Your task to perform on an android device: check android version Image 0: 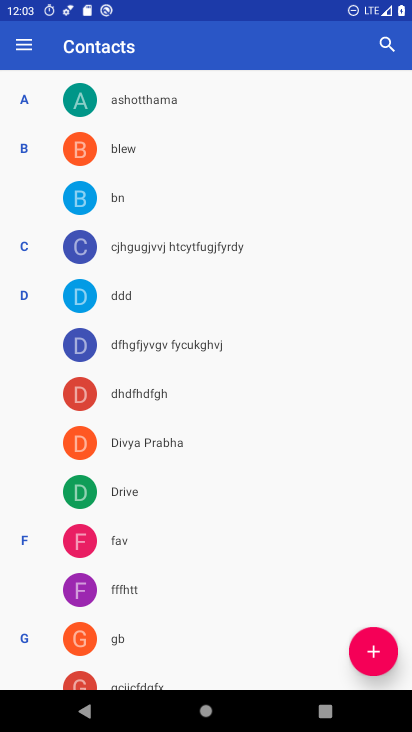
Step 0: press home button
Your task to perform on an android device: check android version Image 1: 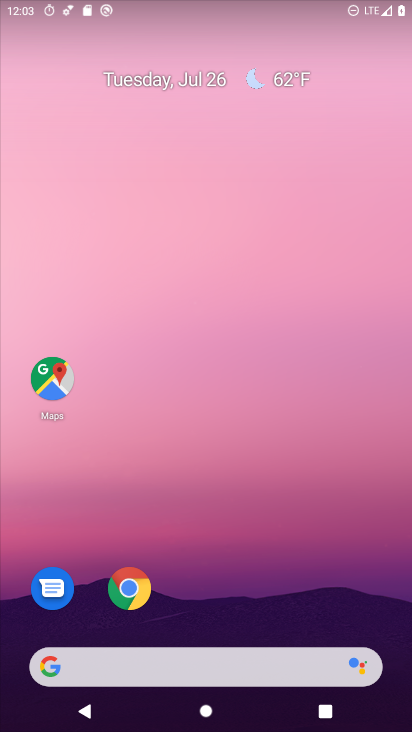
Step 1: drag from (35, 620) to (267, 127)
Your task to perform on an android device: check android version Image 2: 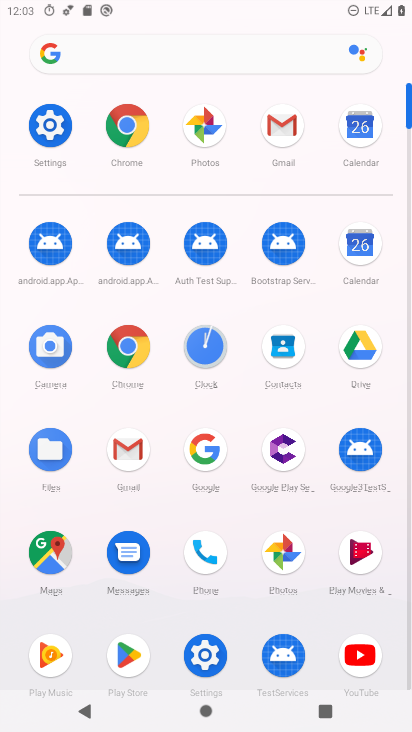
Step 2: click (37, 120)
Your task to perform on an android device: check android version Image 3: 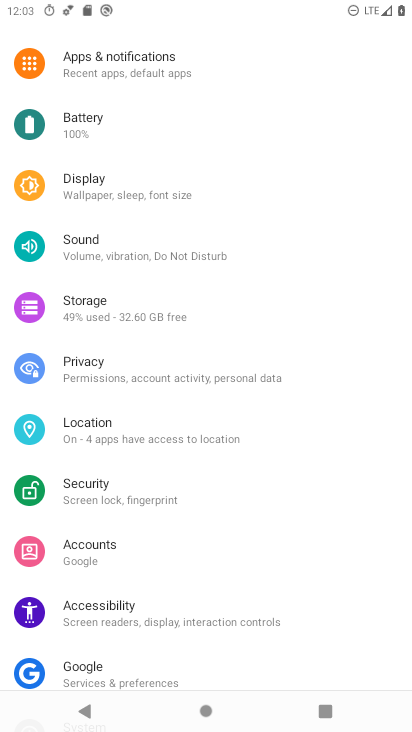
Step 3: drag from (25, 725) to (220, 121)
Your task to perform on an android device: check android version Image 4: 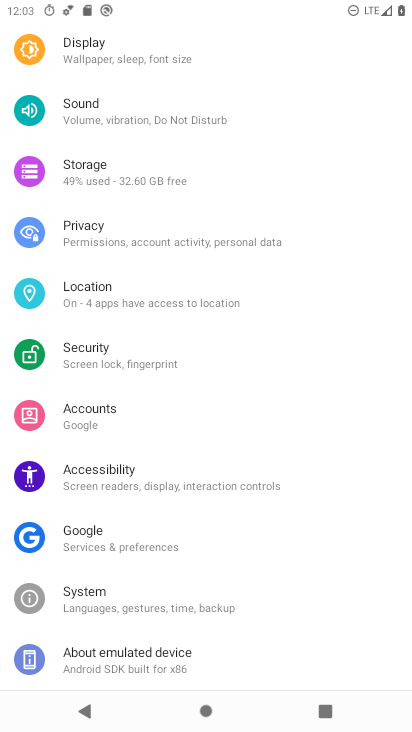
Step 4: drag from (8, 697) to (222, 263)
Your task to perform on an android device: check android version Image 5: 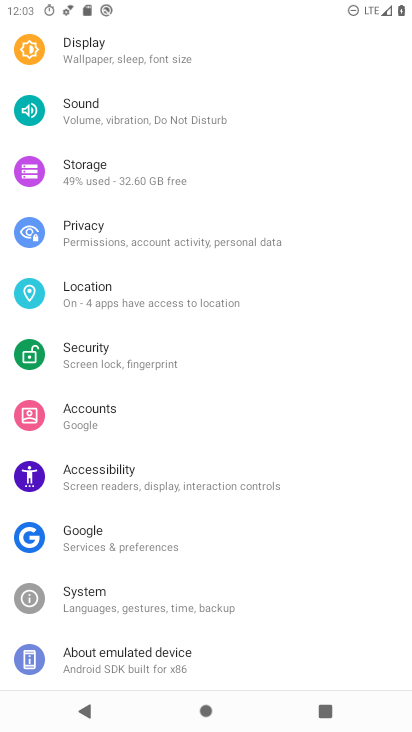
Step 5: click (153, 648)
Your task to perform on an android device: check android version Image 6: 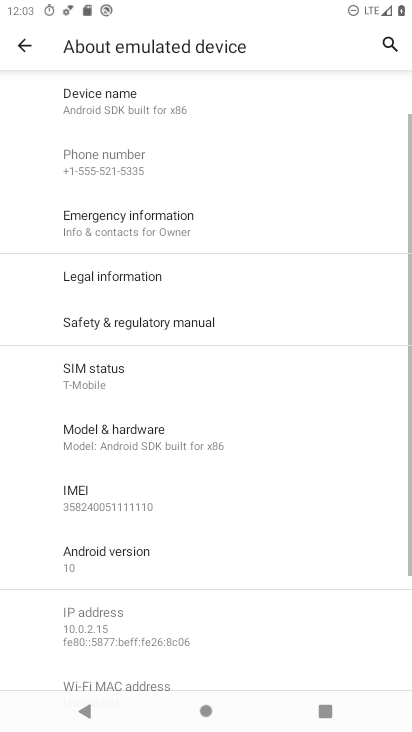
Step 6: drag from (6, 642) to (307, 115)
Your task to perform on an android device: check android version Image 7: 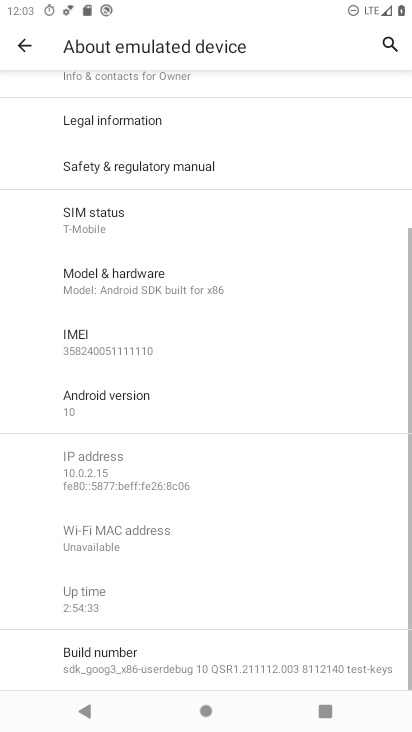
Step 7: drag from (95, 450) to (337, 119)
Your task to perform on an android device: check android version Image 8: 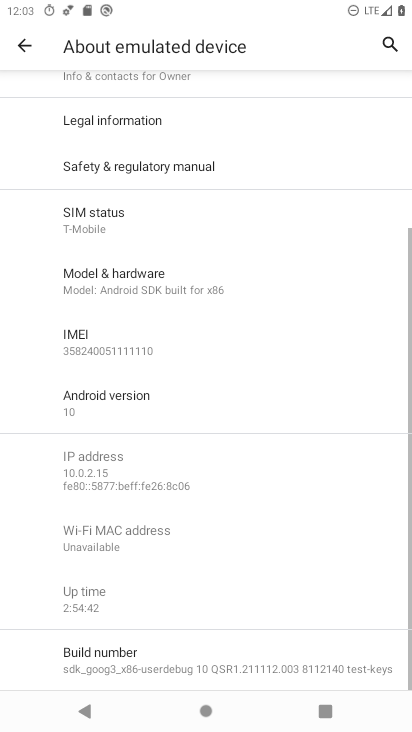
Step 8: drag from (8, 575) to (277, 121)
Your task to perform on an android device: check android version Image 9: 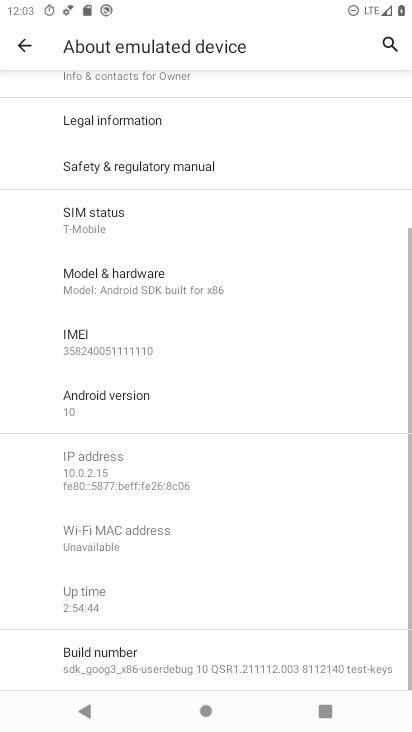
Step 9: click (149, 408)
Your task to perform on an android device: check android version Image 10: 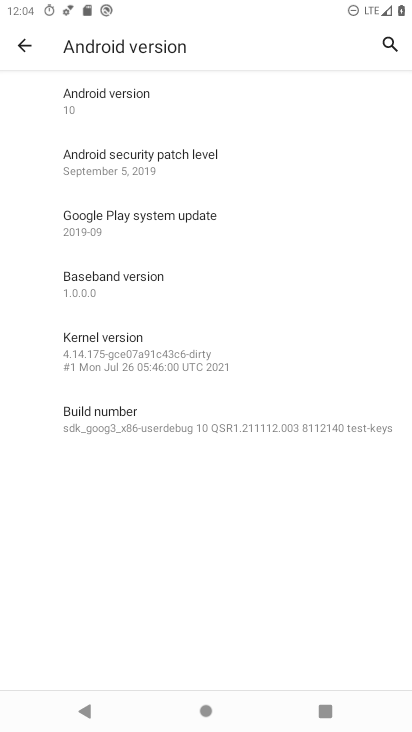
Step 10: click (161, 99)
Your task to perform on an android device: check android version Image 11: 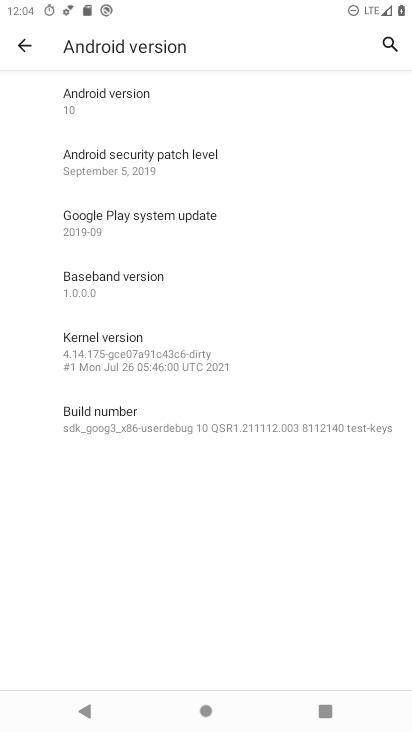
Step 11: task complete